Your task to perform on an android device: Go to calendar. Show me events next week Image 0: 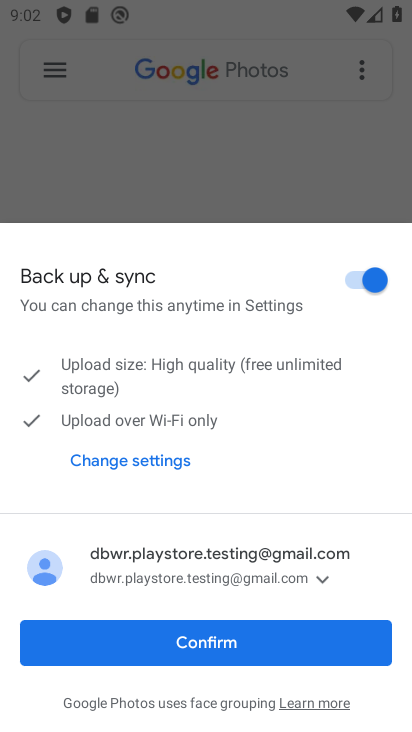
Step 0: press home button
Your task to perform on an android device: Go to calendar. Show me events next week Image 1: 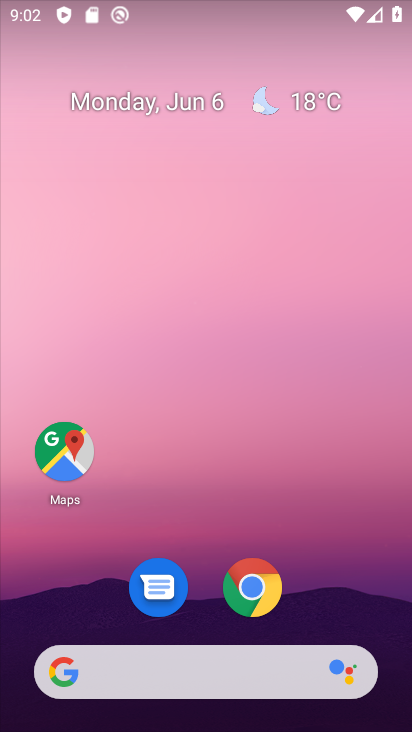
Step 1: drag from (340, 520) to (174, 20)
Your task to perform on an android device: Go to calendar. Show me events next week Image 2: 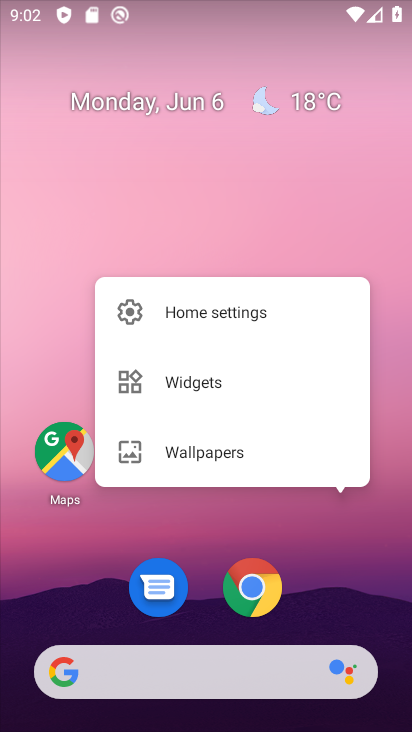
Step 2: click (304, 233)
Your task to perform on an android device: Go to calendar. Show me events next week Image 3: 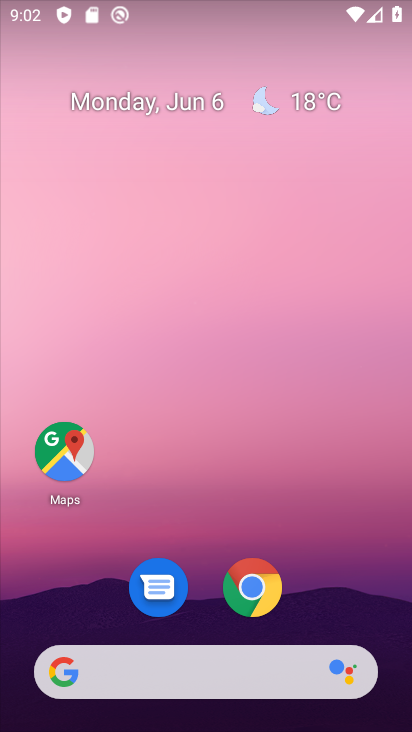
Step 3: drag from (331, 593) to (136, 137)
Your task to perform on an android device: Go to calendar. Show me events next week Image 4: 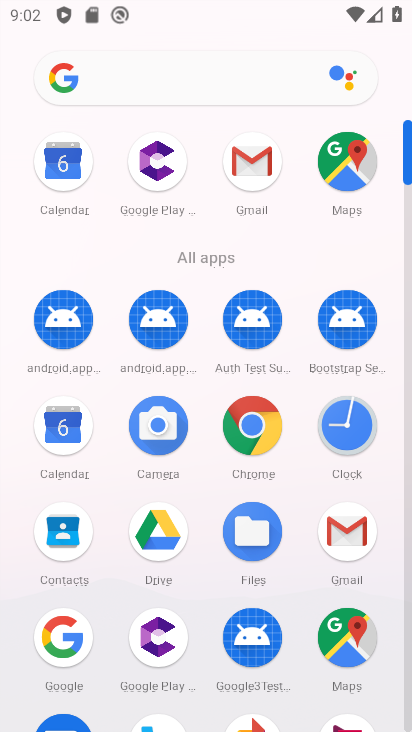
Step 4: click (291, 386)
Your task to perform on an android device: Go to calendar. Show me events next week Image 5: 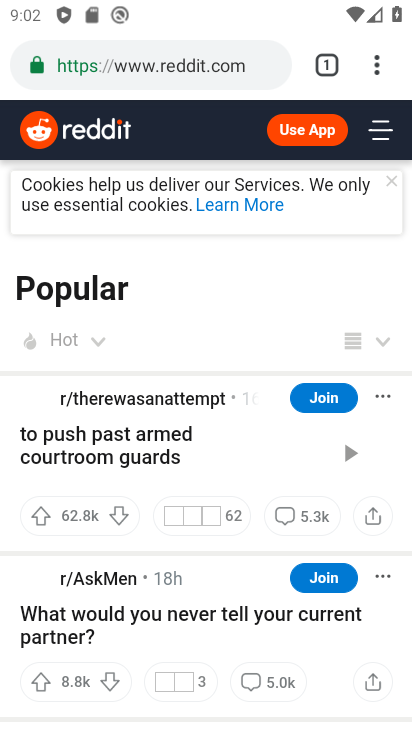
Step 5: press home button
Your task to perform on an android device: Go to calendar. Show me events next week Image 6: 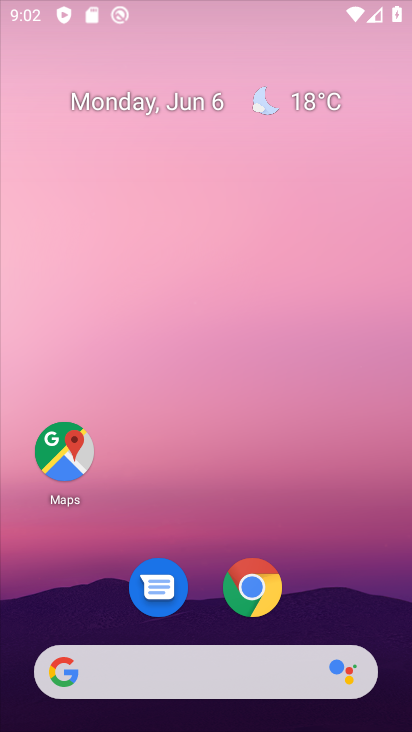
Step 6: drag from (354, 584) to (182, 159)
Your task to perform on an android device: Go to calendar. Show me events next week Image 7: 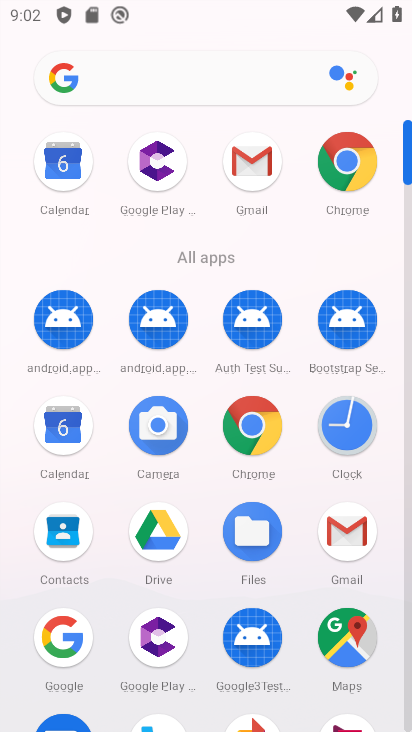
Step 7: click (61, 150)
Your task to perform on an android device: Go to calendar. Show me events next week Image 8: 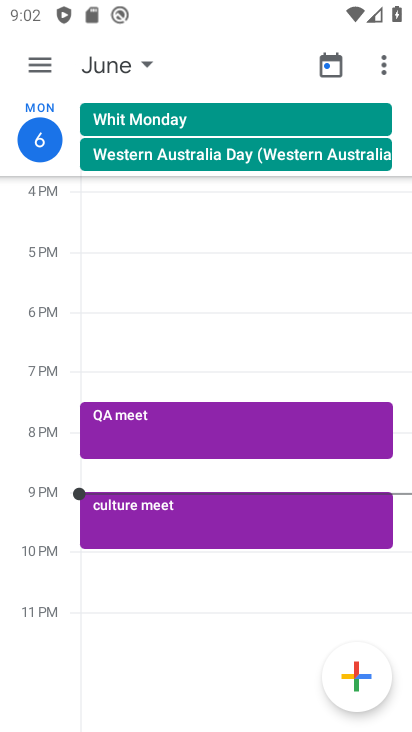
Step 8: click (132, 70)
Your task to perform on an android device: Go to calendar. Show me events next week Image 9: 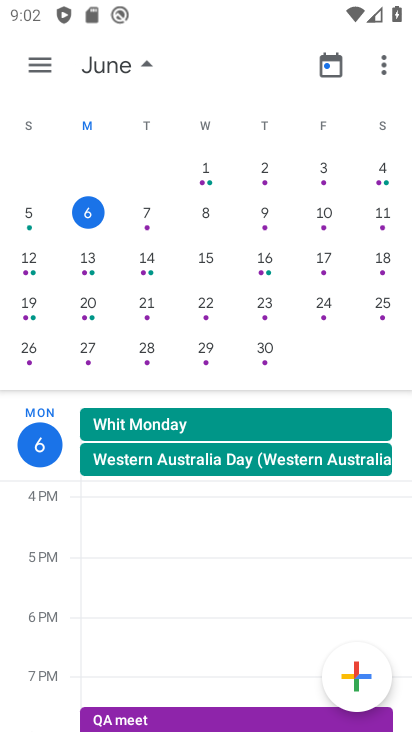
Step 9: click (27, 50)
Your task to perform on an android device: Go to calendar. Show me events next week Image 10: 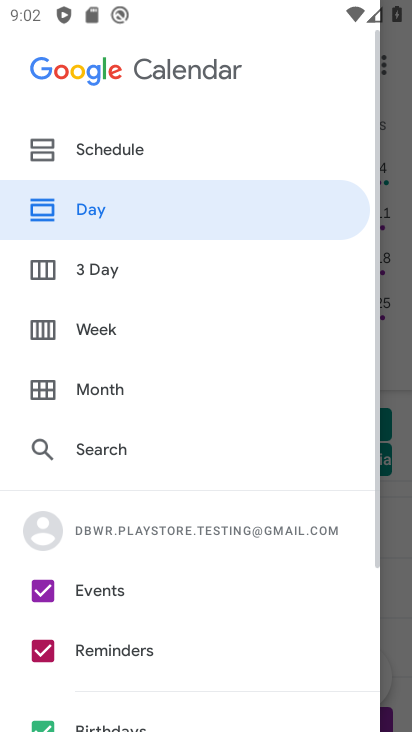
Step 10: click (102, 318)
Your task to perform on an android device: Go to calendar. Show me events next week Image 11: 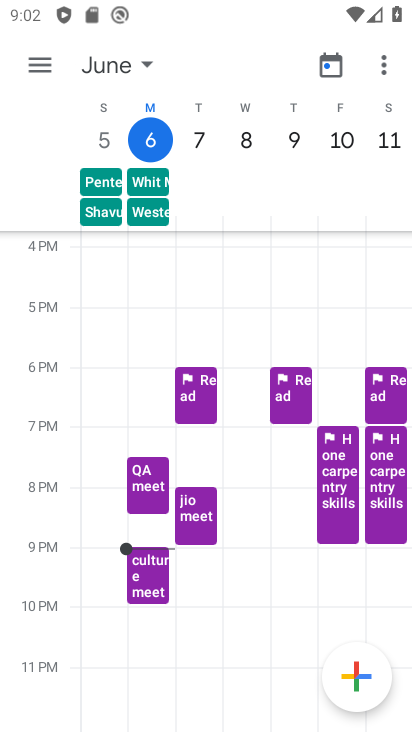
Step 11: task complete